Your task to perform on an android device: Add "bose soundlink" to the cart on ebay Image 0: 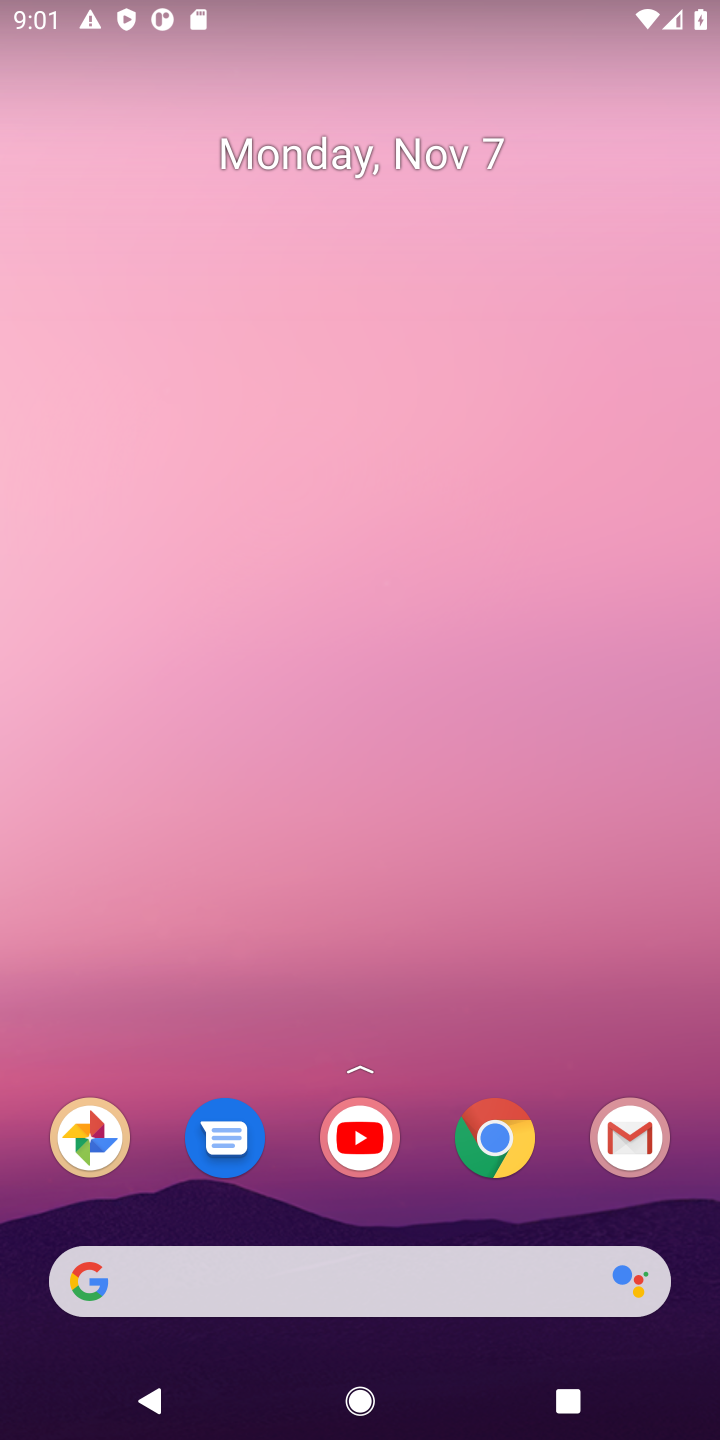
Step 0: drag from (442, 1213) to (451, 75)
Your task to perform on an android device: Add "bose soundlink" to the cart on ebay Image 1: 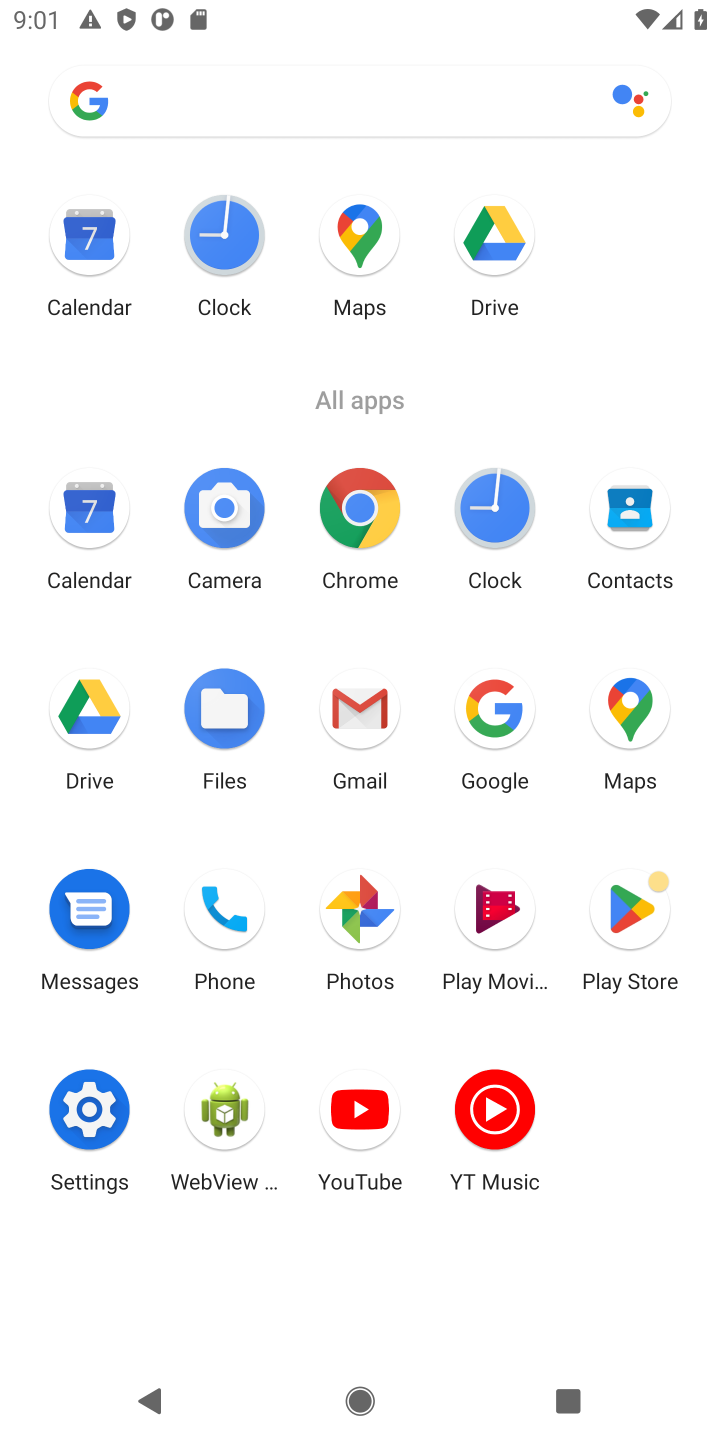
Step 1: click (356, 516)
Your task to perform on an android device: Add "bose soundlink" to the cart on ebay Image 2: 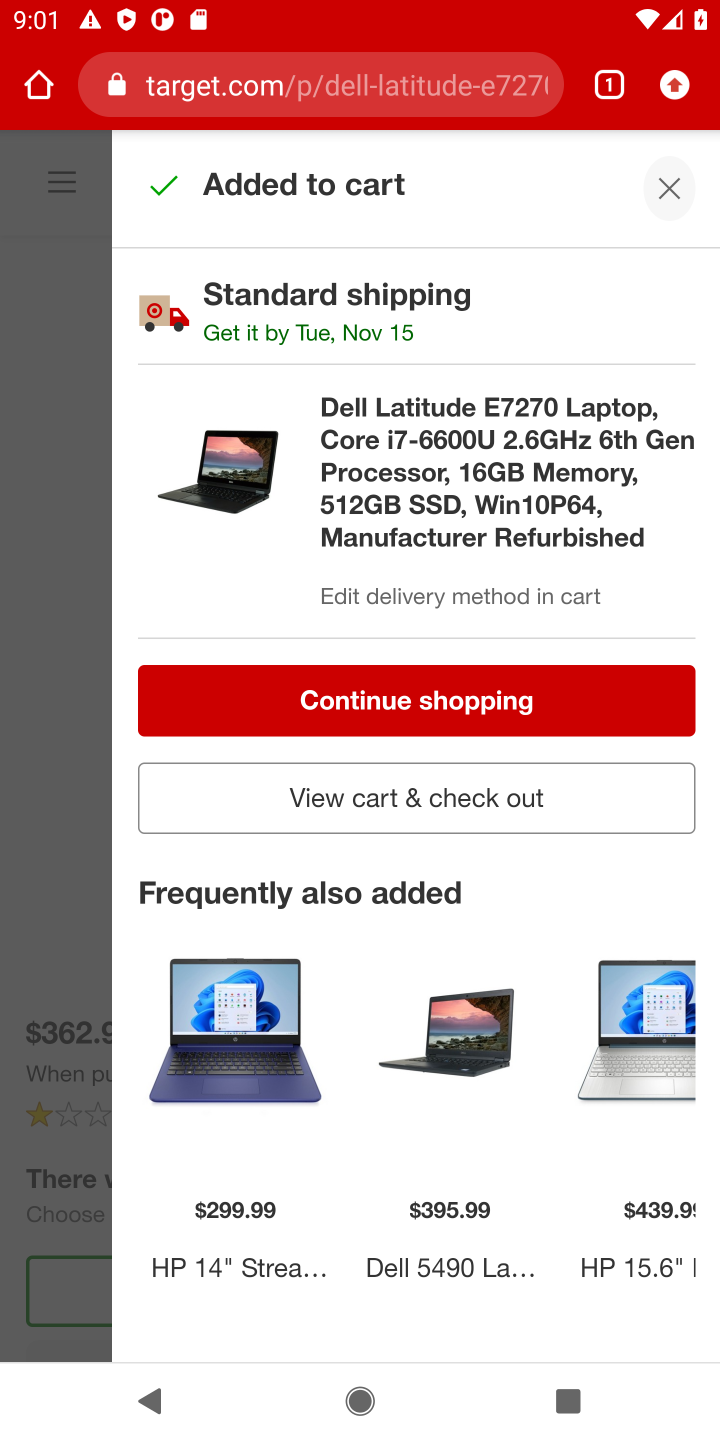
Step 2: click (457, 87)
Your task to perform on an android device: Add "bose soundlink" to the cart on ebay Image 3: 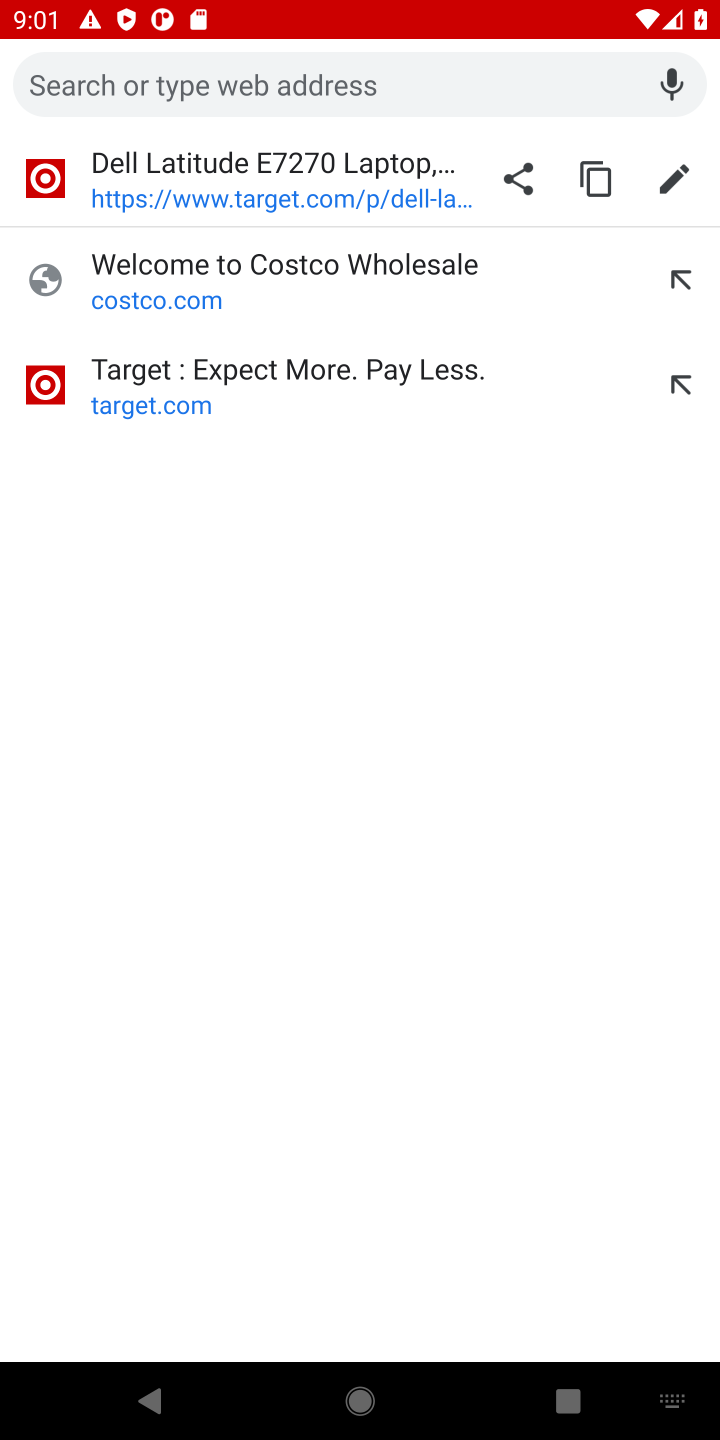
Step 3: type "ebay.com"
Your task to perform on an android device: Add "bose soundlink" to the cart on ebay Image 4: 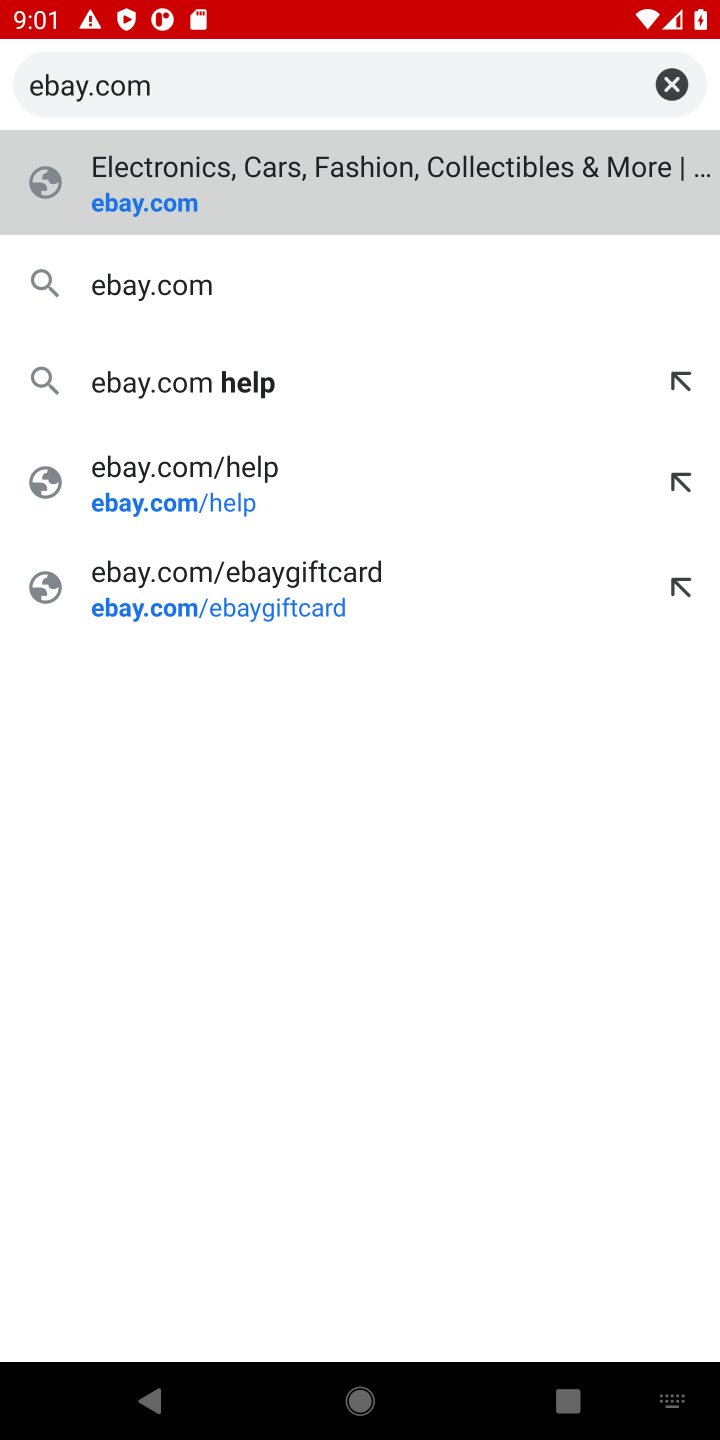
Step 4: press enter
Your task to perform on an android device: Add "bose soundlink" to the cart on ebay Image 5: 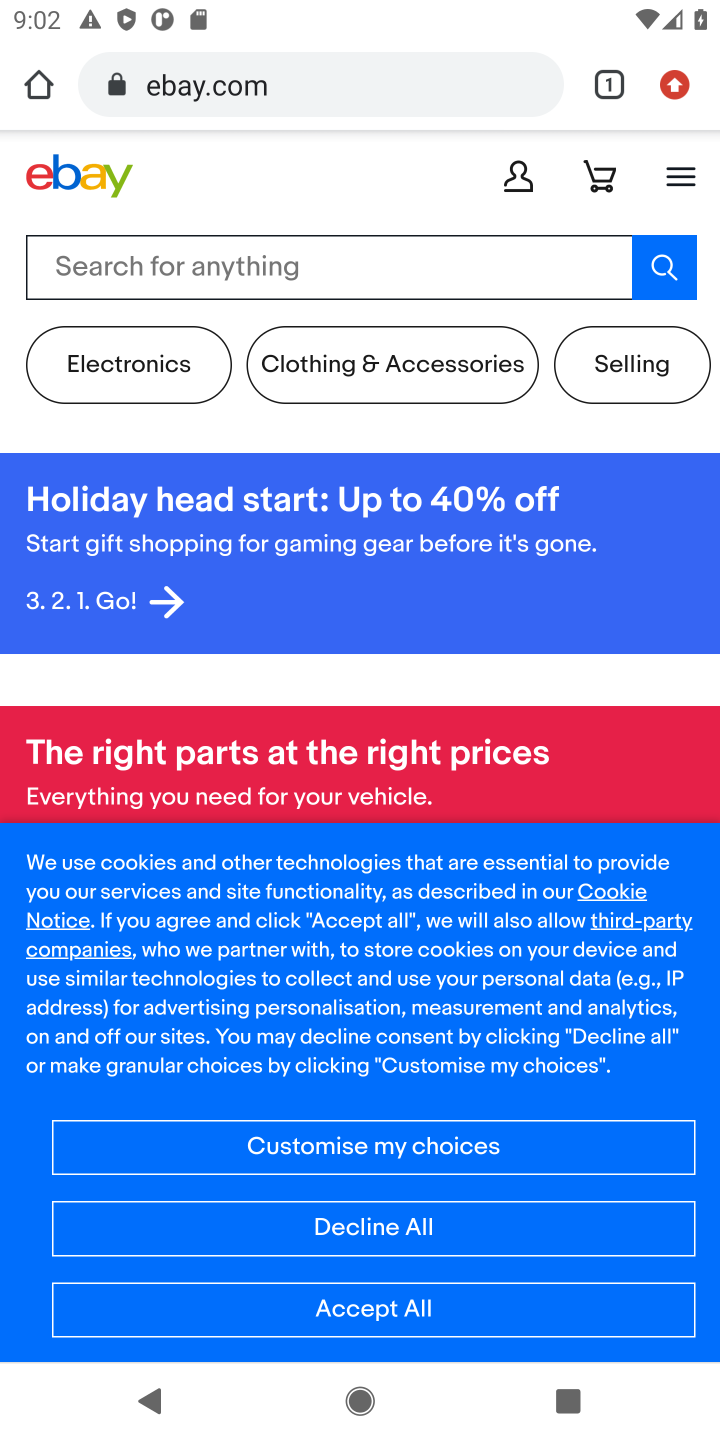
Step 5: click (431, 258)
Your task to perform on an android device: Add "bose soundlink" to the cart on ebay Image 6: 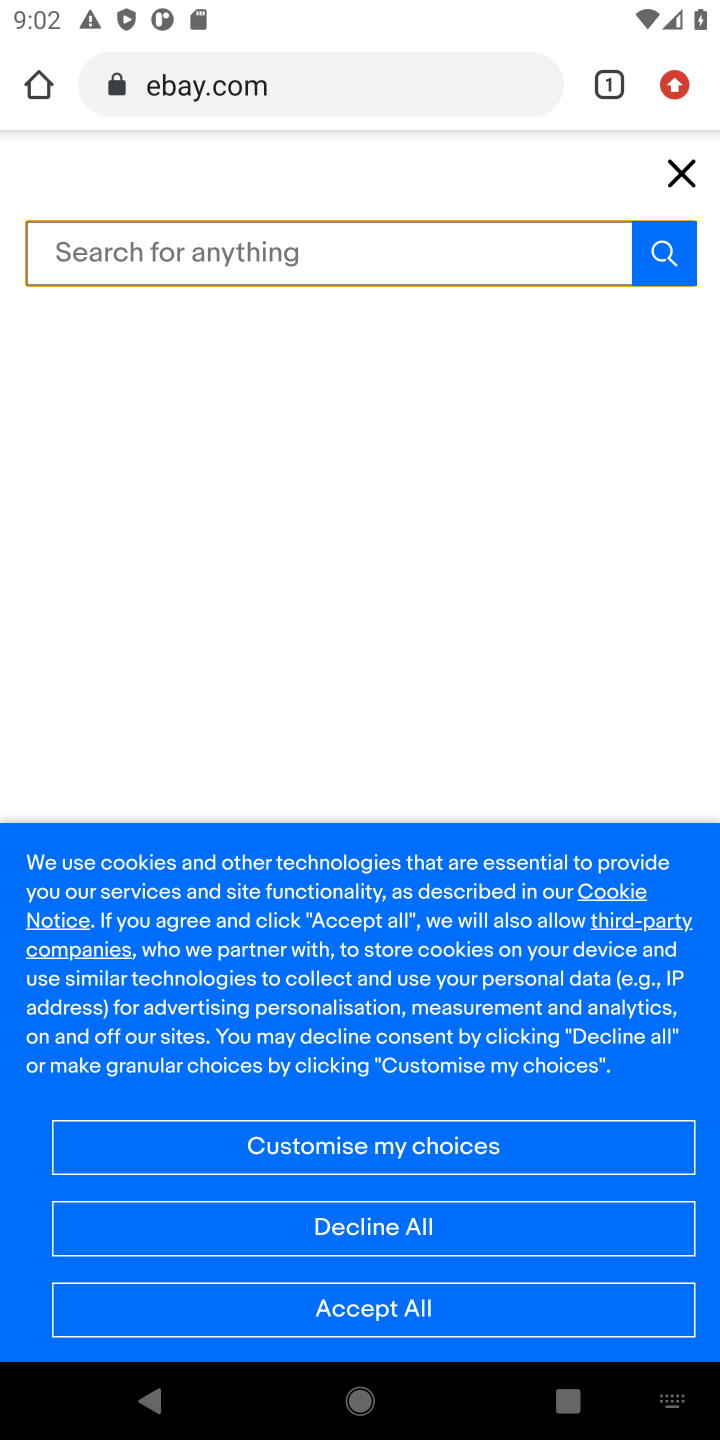
Step 6: type " bose soundlink"
Your task to perform on an android device: Add "bose soundlink" to the cart on ebay Image 7: 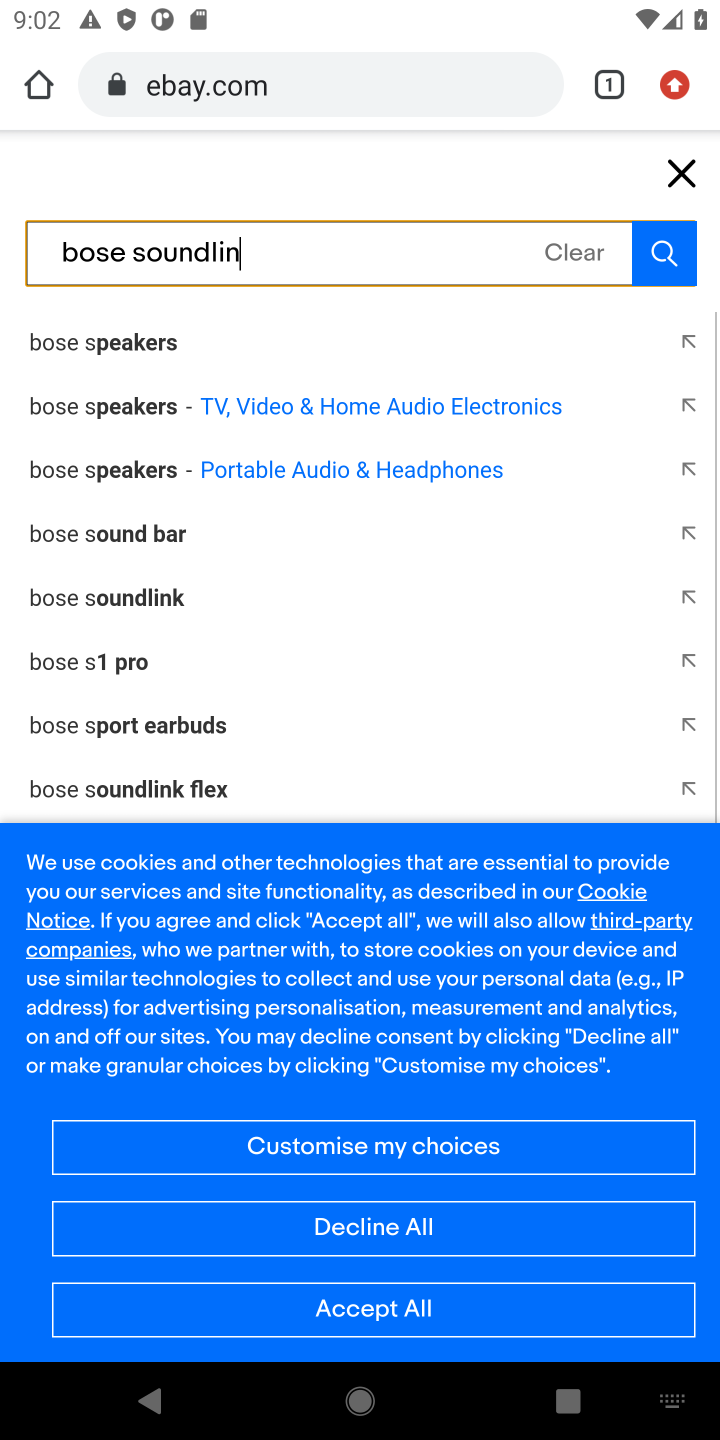
Step 7: press enter
Your task to perform on an android device: Add "bose soundlink" to the cart on ebay Image 8: 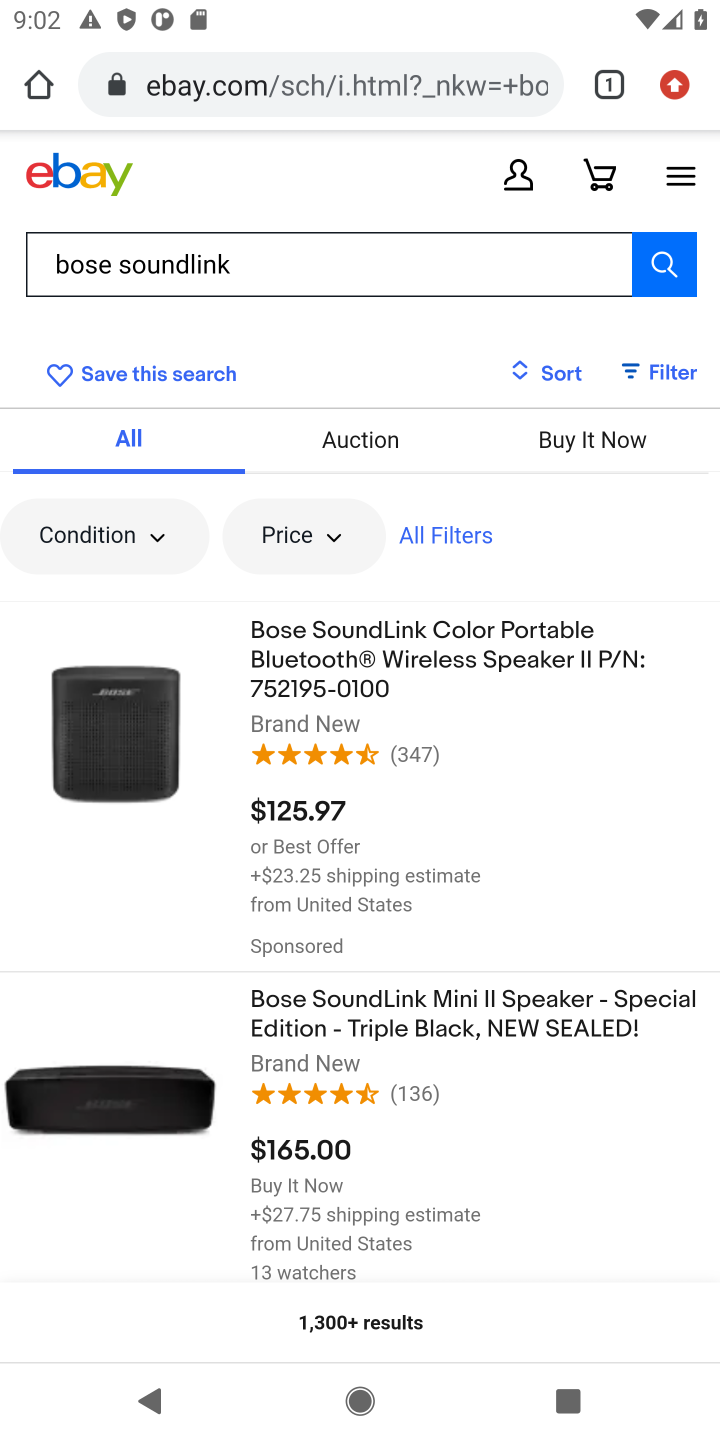
Step 8: click (379, 653)
Your task to perform on an android device: Add "bose soundlink" to the cart on ebay Image 9: 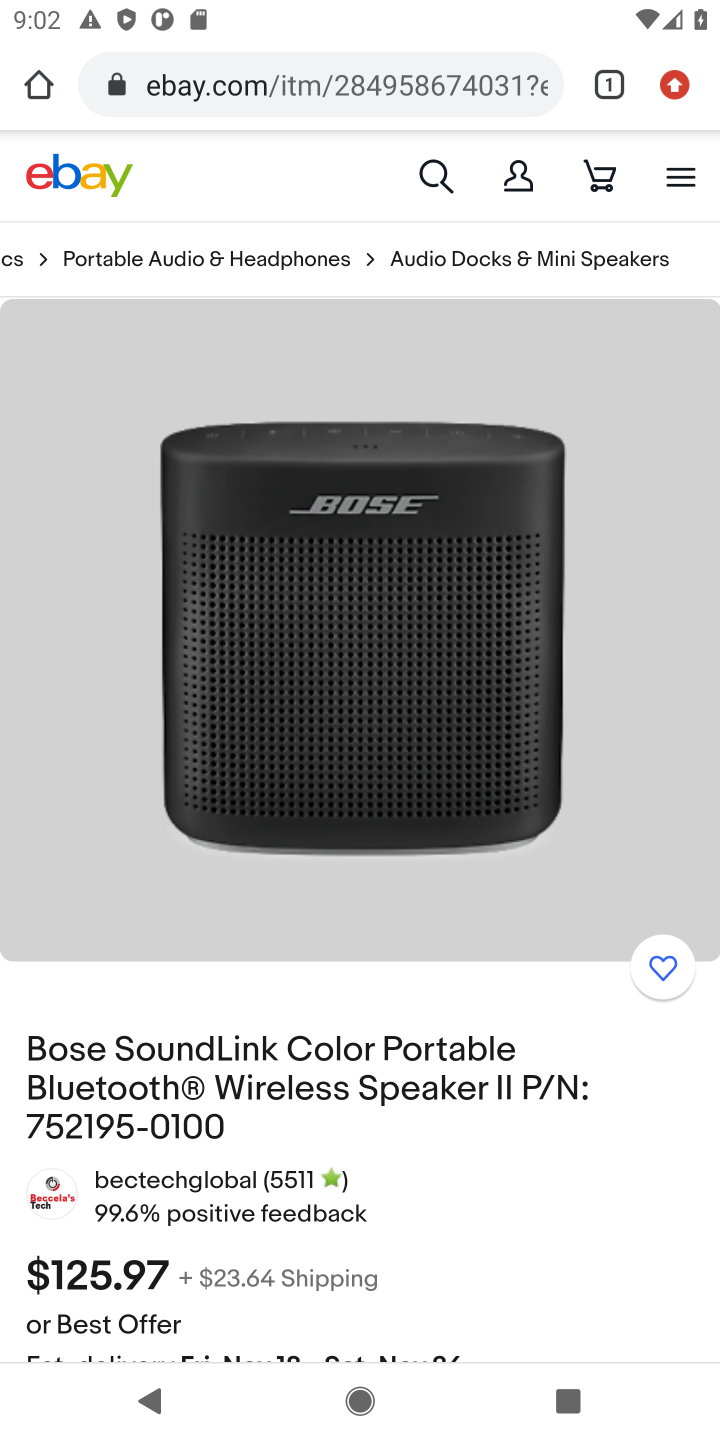
Step 9: drag from (600, 1247) to (561, 222)
Your task to perform on an android device: Add "bose soundlink" to the cart on ebay Image 10: 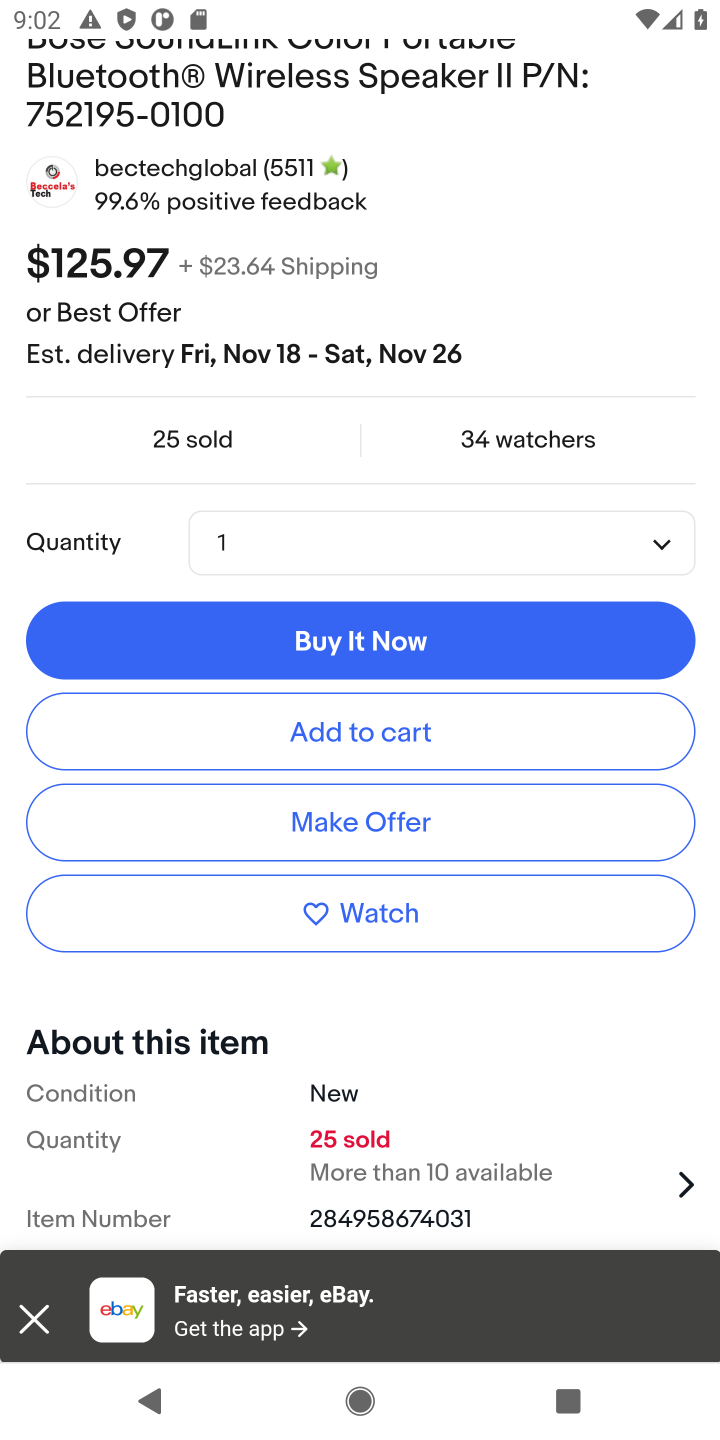
Step 10: click (400, 740)
Your task to perform on an android device: Add "bose soundlink" to the cart on ebay Image 11: 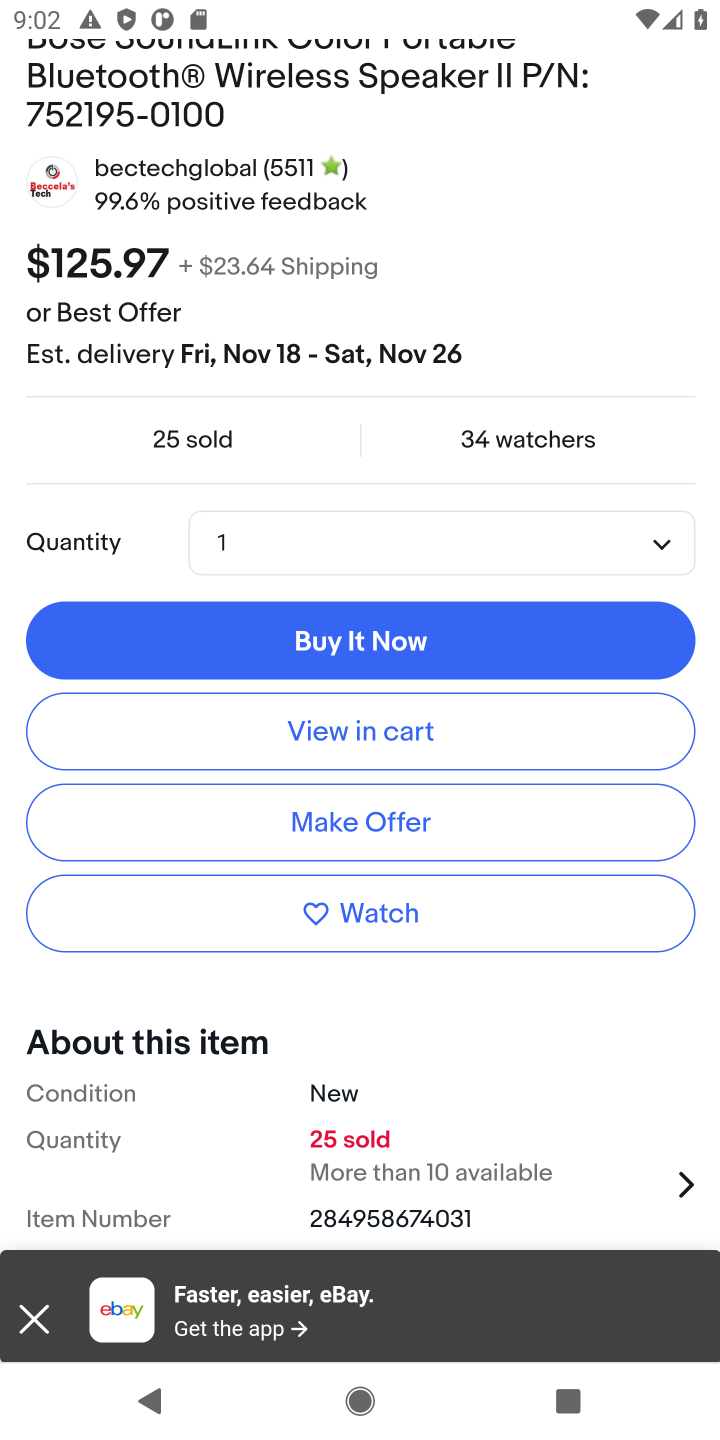
Step 11: task complete